Your task to perform on an android device: toggle airplane mode Image 0: 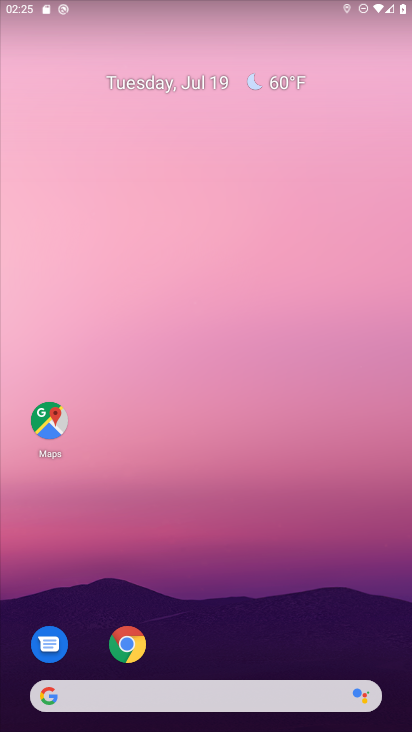
Step 0: drag from (217, 618) to (118, 2)
Your task to perform on an android device: toggle airplane mode Image 1: 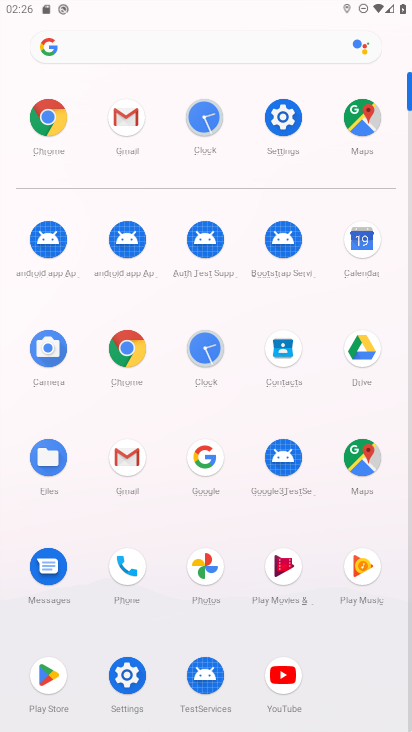
Step 1: click (285, 119)
Your task to perform on an android device: toggle airplane mode Image 2: 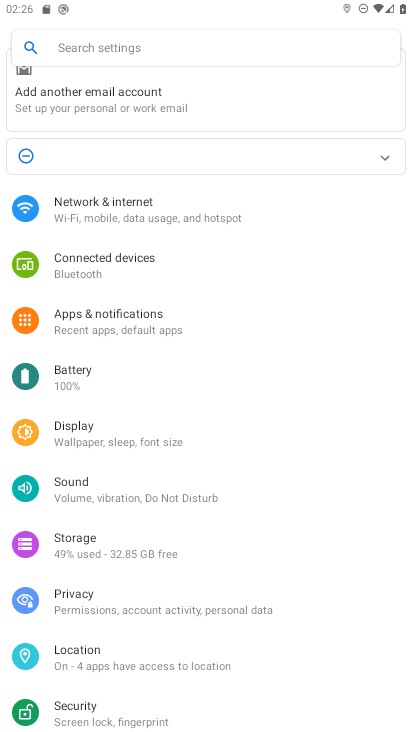
Step 2: click (149, 220)
Your task to perform on an android device: toggle airplane mode Image 3: 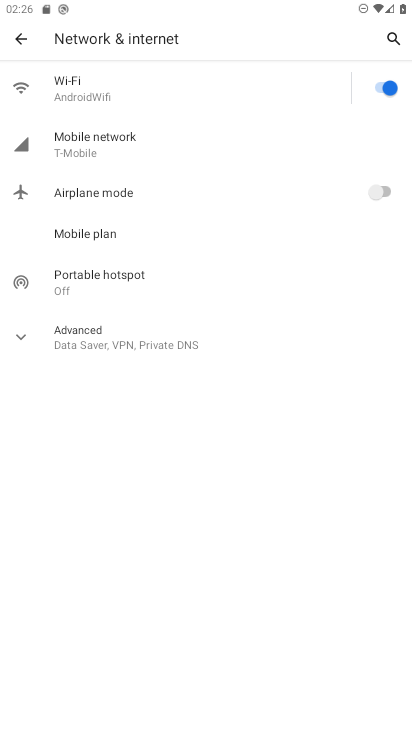
Step 3: click (378, 192)
Your task to perform on an android device: toggle airplane mode Image 4: 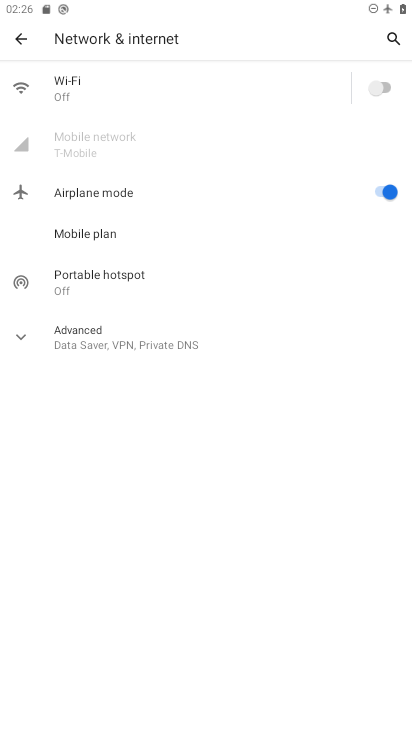
Step 4: task complete